Your task to perform on an android device: add a label to a message in the gmail app Image 0: 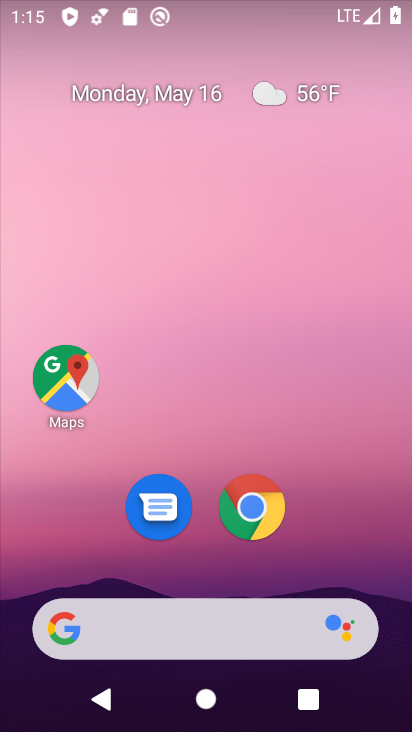
Step 0: drag from (214, 558) to (180, 287)
Your task to perform on an android device: add a label to a message in the gmail app Image 1: 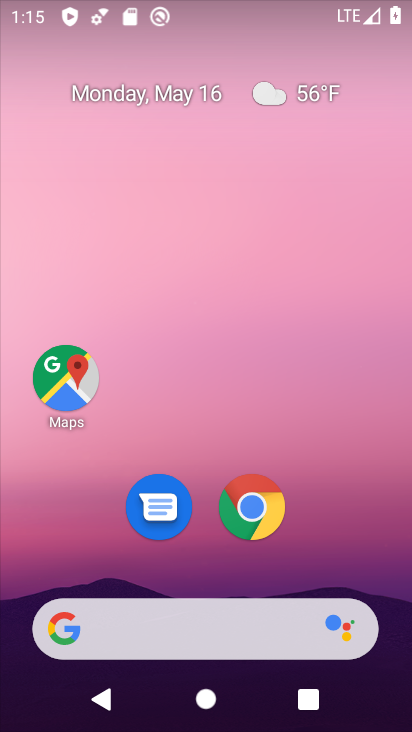
Step 1: drag from (209, 577) to (198, 167)
Your task to perform on an android device: add a label to a message in the gmail app Image 2: 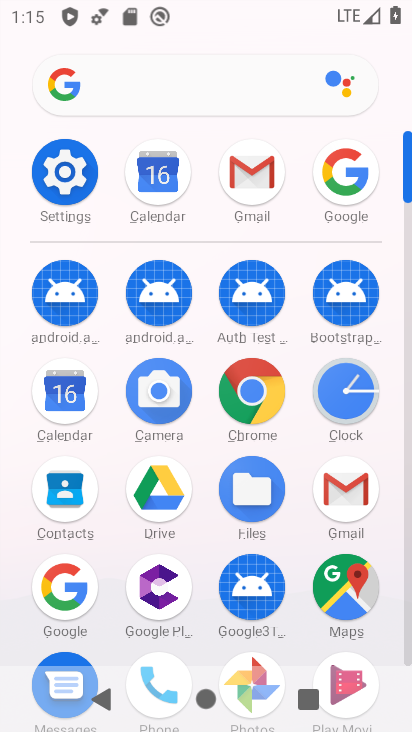
Step 2: click (276, 165)
Your task to perform on an android device: add a label to a message in the gmail app Image 3: 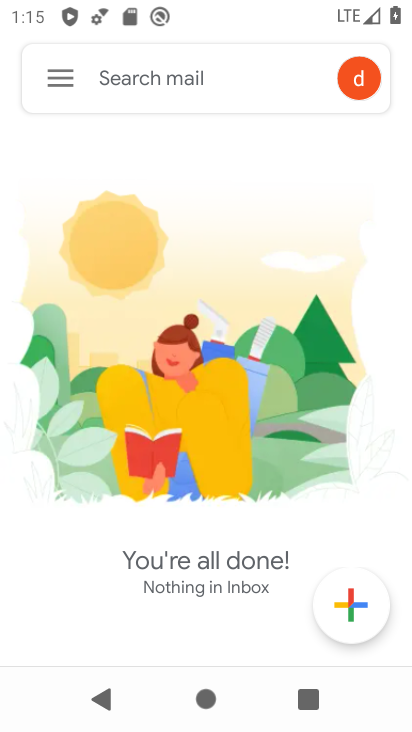
Step 3: click (69, 75)
Your task to perform on an android device: add a label to a message in the gmail app Image 4: 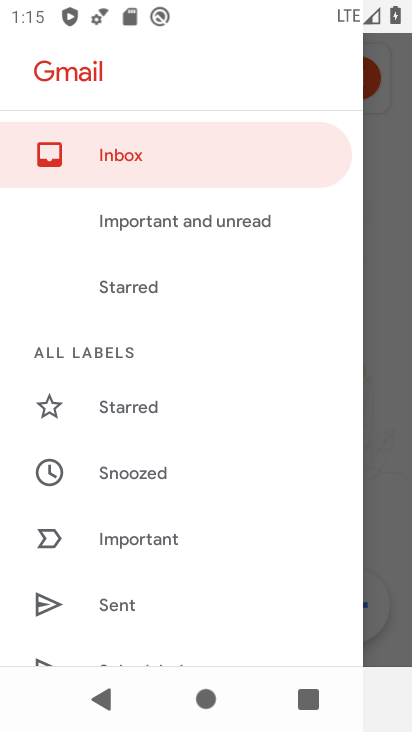
Step 4: drag from (188, 577) to (173, 339)
Your task to perform on an android device: add a label to a message in the gmail app Image 5: 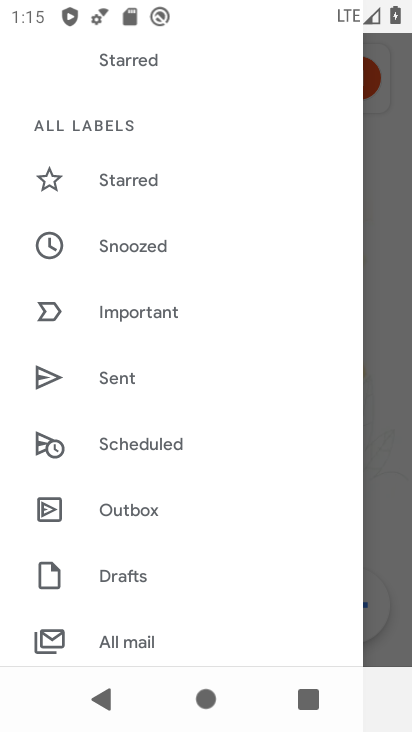
Step 5: drag from (189, 561) to (225, 286)
Your task to perform on an android device: add a label to a message in the gmail app Image 6: 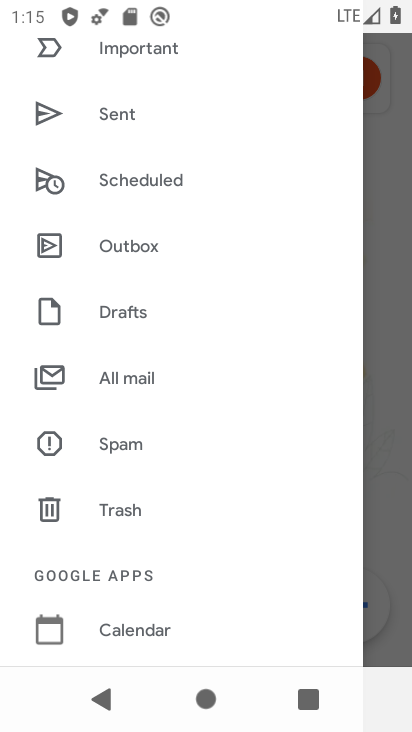
Step 6: click (167, 371)
Your task to perform on an android device: add a label to a message in the gmail app Image 7: 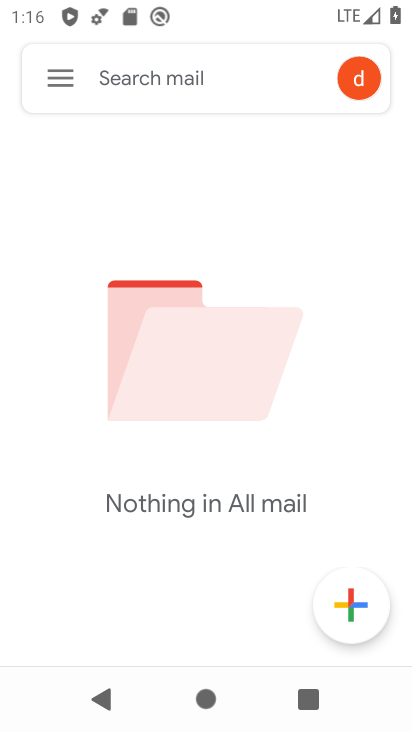
Step 7: click (48, 64)
Your task to perform on an android device: add a label to a message in the gmail app Image 8: 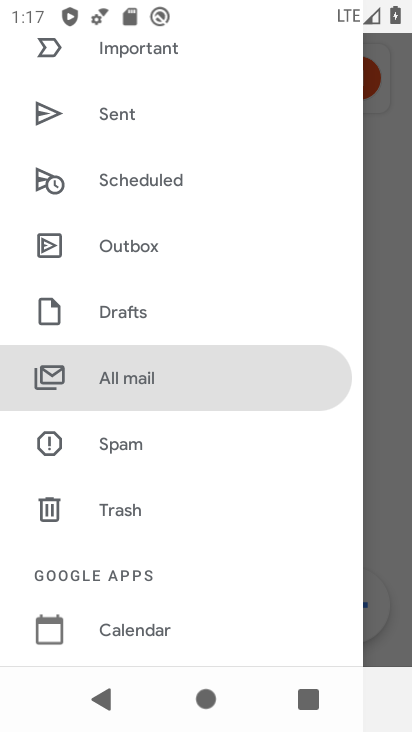
Step 8: click (129, 391)
Your task to perform on an android device: add a label to a message in the gmail app Image 9: 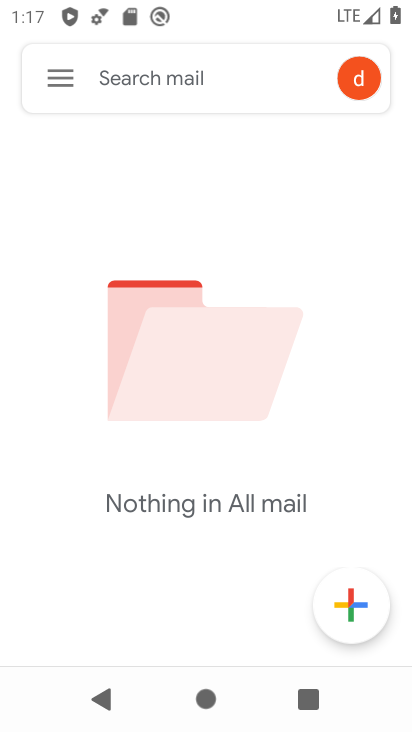
Step 9: click (54, 70)
Your task to perform on an android device: add a label to a message in the gmail app Image 10: 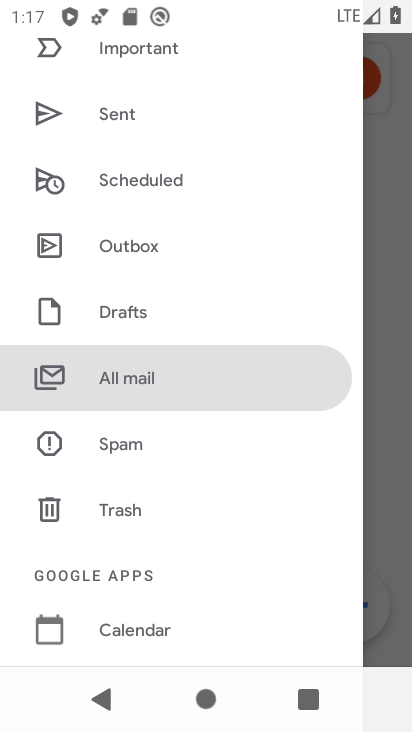
Step 10: click (195, 365)
Your task to perform on an android device: add a label to a message in the gmail app Image 11: 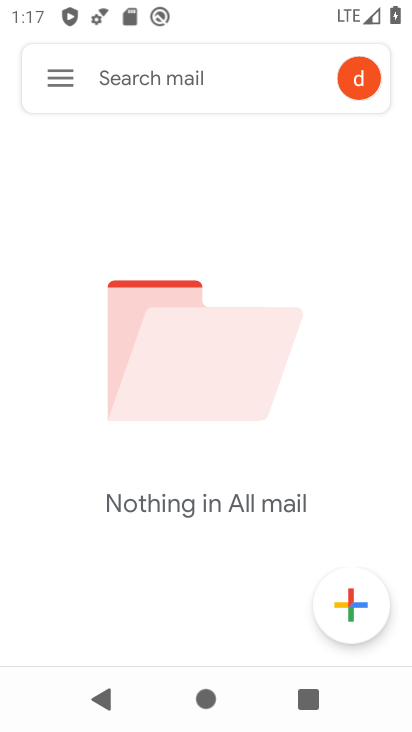
Step 11: task complete